Your task to perform on an android device: delete the emails in spam in the gmail app Image 0: 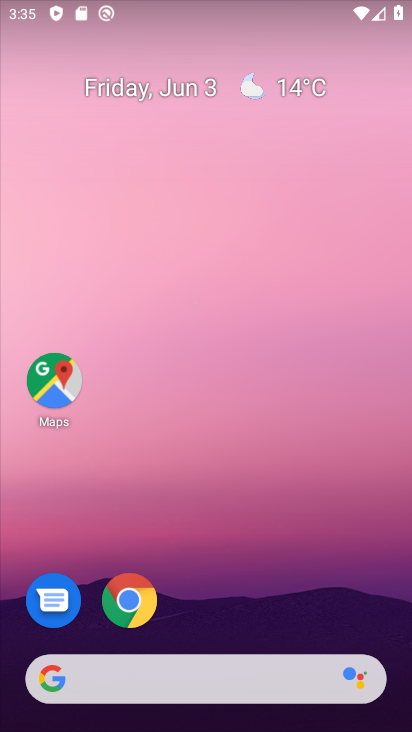
Step 0: press home button
Your task to perform on an android device: delete the emails in spam in the gmail app Image 1: 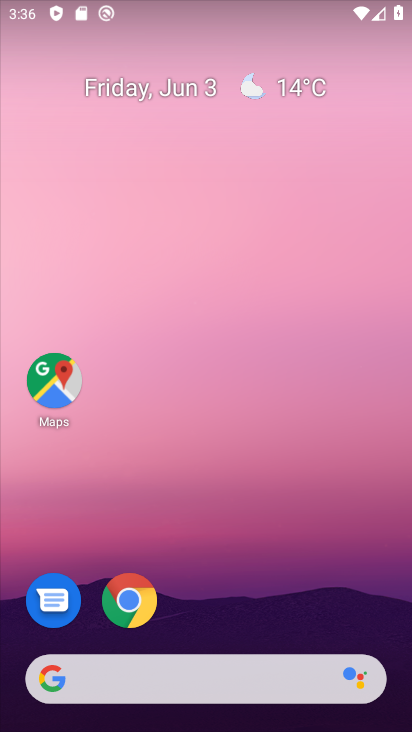
Step 1: drag from (40, 517) to (277, 50)
Your task to perform on an android device: delete the emails in spam in the gmail app Image 2: 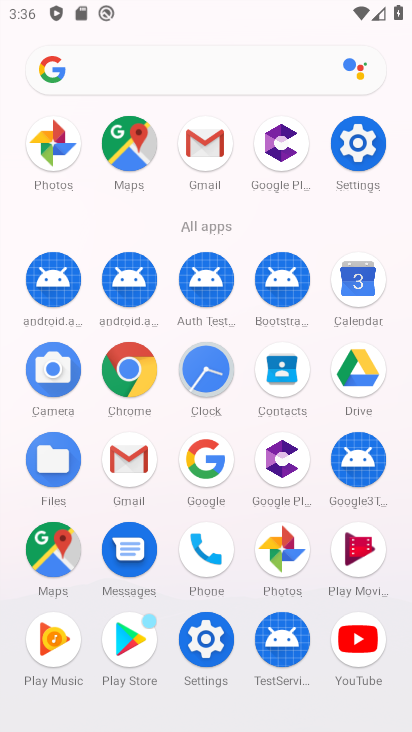
Step 2: click (143, 461)
Your task to perform on an android device: delete the emails in spam in the gmail app Image 3: 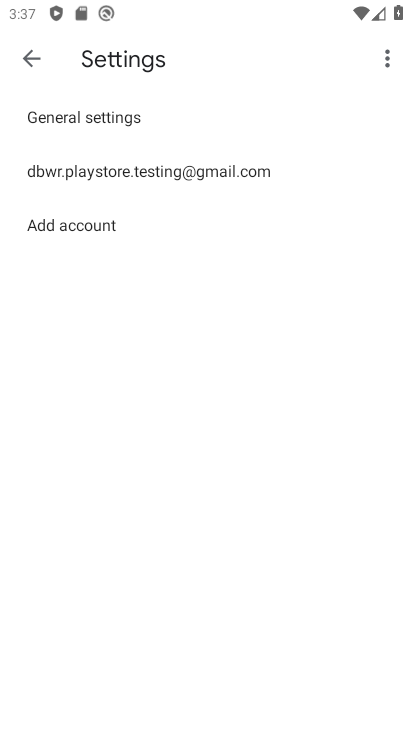
Step 3: click (139, 169)
Your task to perform on an android device: delete the emails in spam in the gmail app Image 4: 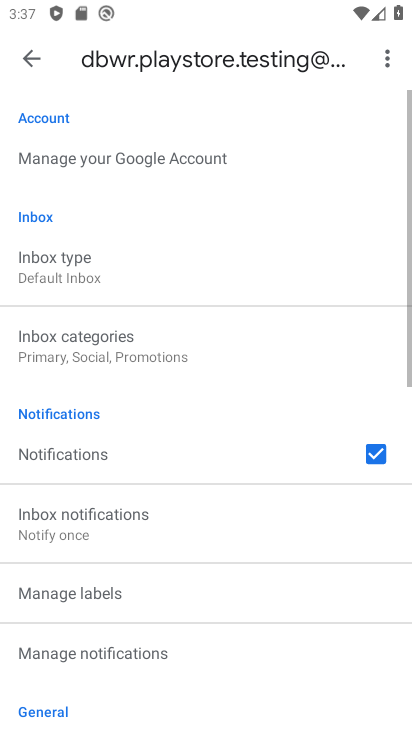
Step 4: task complete